Your task to perform on an android device: Search for Italian restaurants on Maps Image 0: 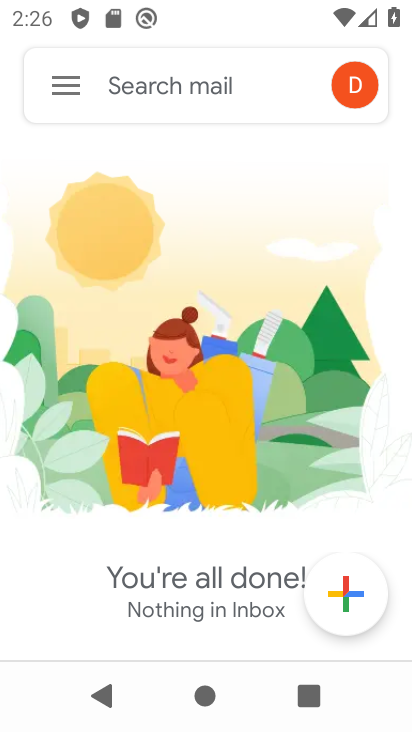
Step 0: press home button
Your task to perform on an android device: Search for Italian restaurants on Maps Image 1: 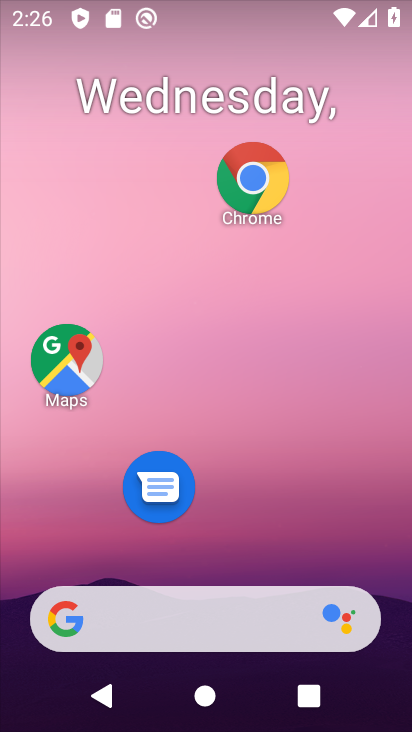
Step 1: click (62, 342)
Your task to perform on an android device: Search for Italian restaurants on Maps Image 2: 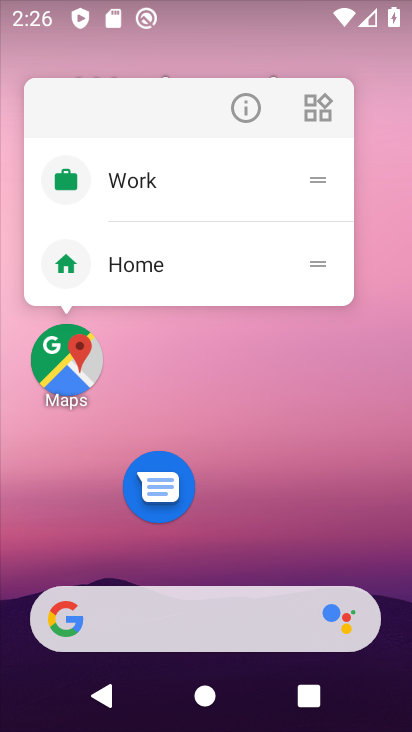
Step 2: click (57, 365)
Your task to perform on an android device: Search for Italian restaurants on Maps Image 3: 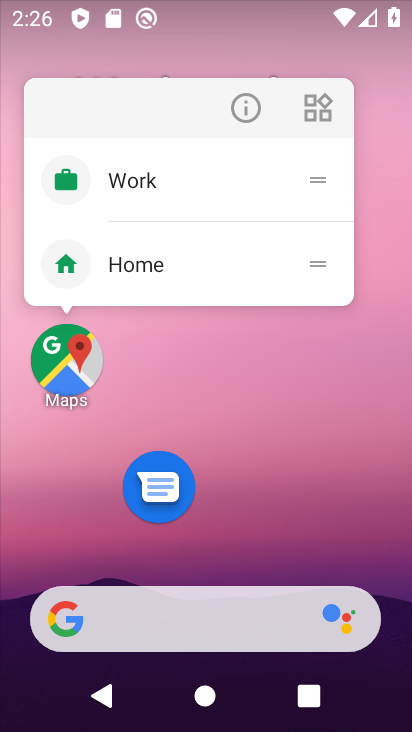
Step 3: click (68, 349)
Your task to perform on an android device: Search for Italian restaurants on Maps Image 4: 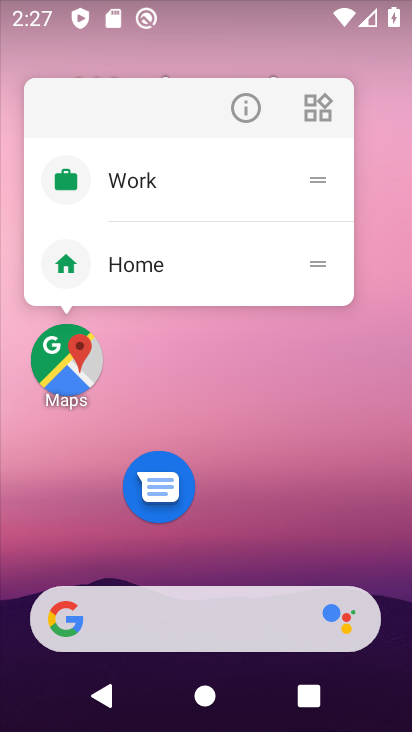
Step 4: click (61, 350)
Your task to perform on an android device: Search for Italian restaurants on Maps Image 5: 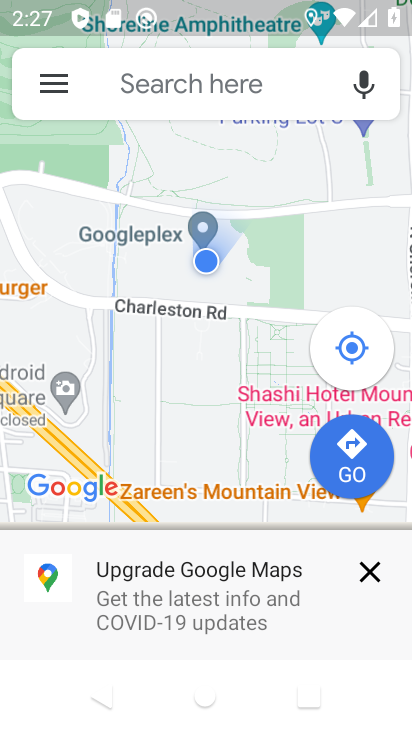
Step 5: click (176, 73)
Your task to perform on an android device: Search for Italian restaurants on Maps Image 6: 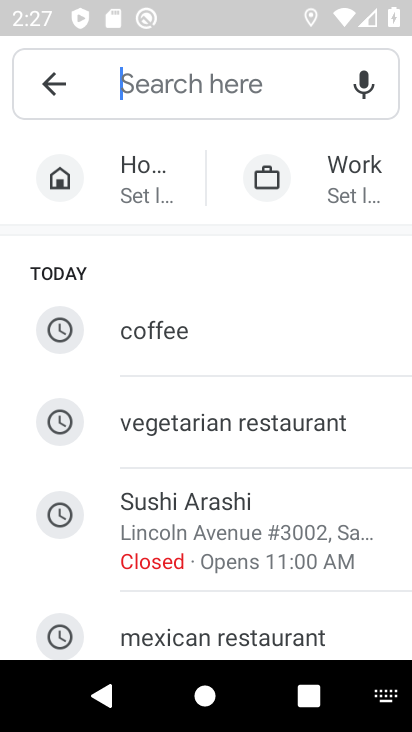
Step 6: type "italian restaurants"
Your task to perform on an android device: Search for Italian restaurants on Maps Image 7: 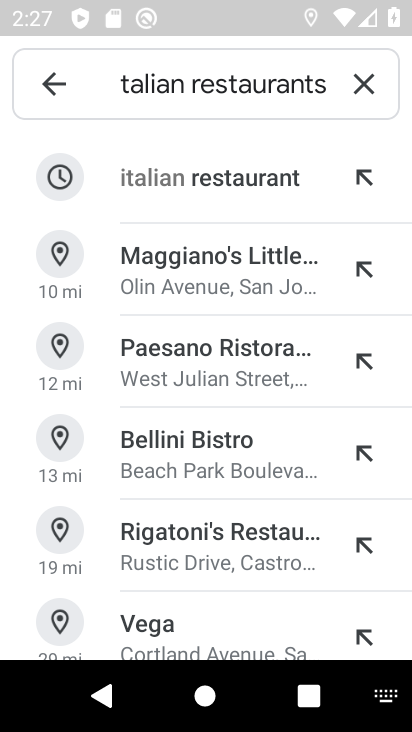
Step 7: click (269, 193)
Your task to perform on an android device: Search for Italian restaurants on Maps Image 8: 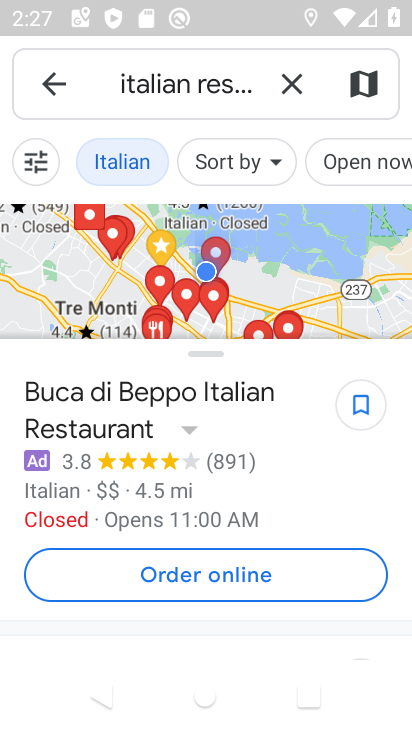
Step 8: task complete